Your task to perform on an android device: all mails in gmail Image 0: 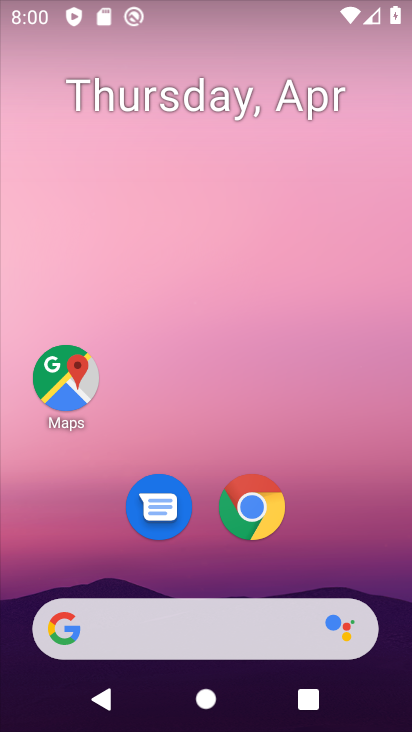
Step 0: drag from (357, 526) to (344, 2)
Your task to perform on an android device: all mails in gmail Image 1: 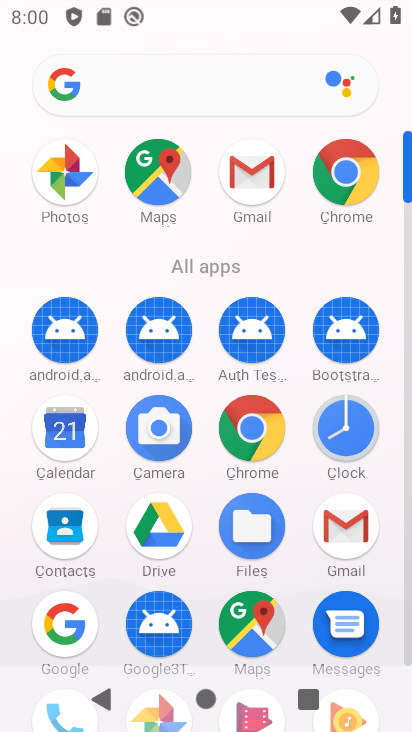
Step 1: click (247, 151)
Your task to perform on an android device: all mails in gmail Image 2: 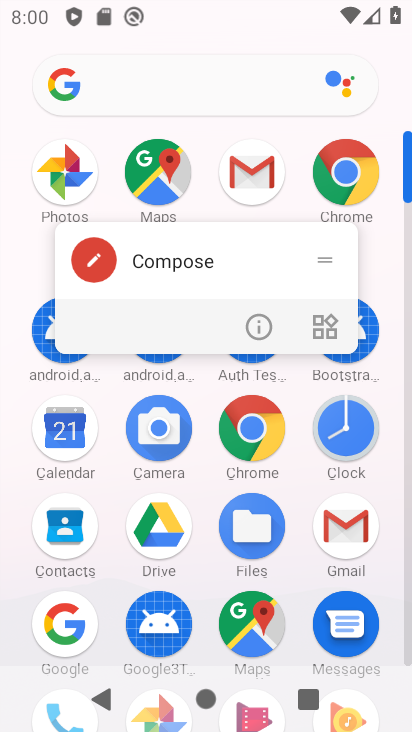
Step 2: click (254, 158)
Your task to perform on an android device: all mails in gmail Image 3: 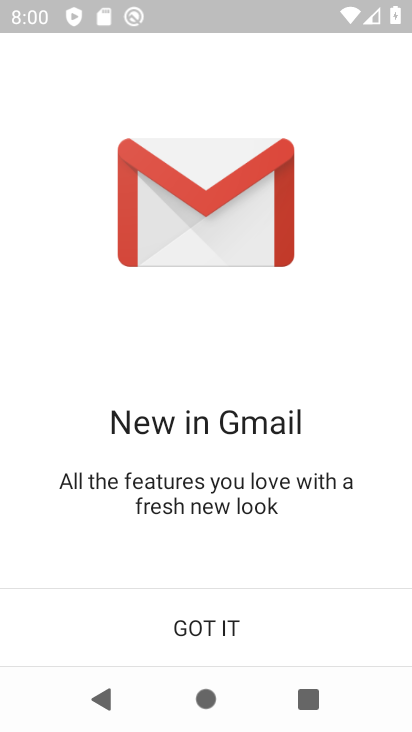
Step 3: click (194, 632)
Your task to perform on an android device: all mails in gmail Image 4: 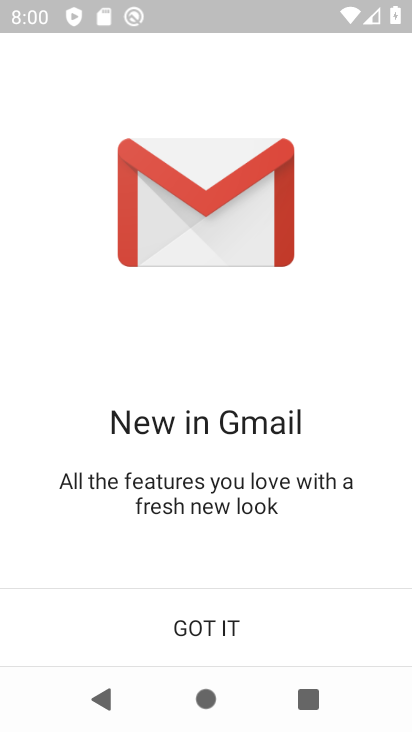
Step 4: click (194, 632)
Your task to perform on an android device: all mails in gmail Image 5: 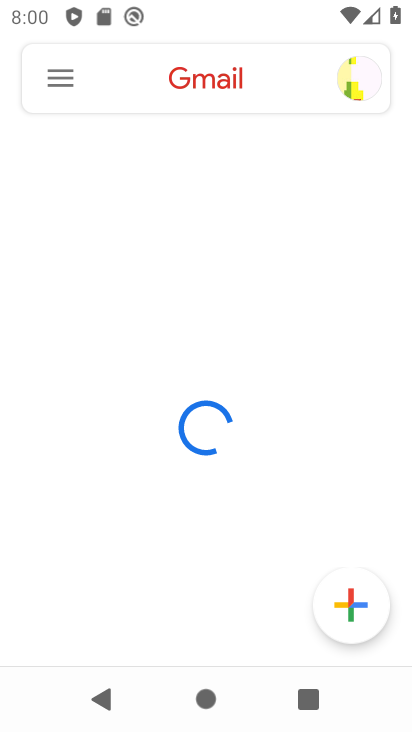
Step 5: click (60, 72)
Your task to perform on an android device: all mails in gmail Image 6: 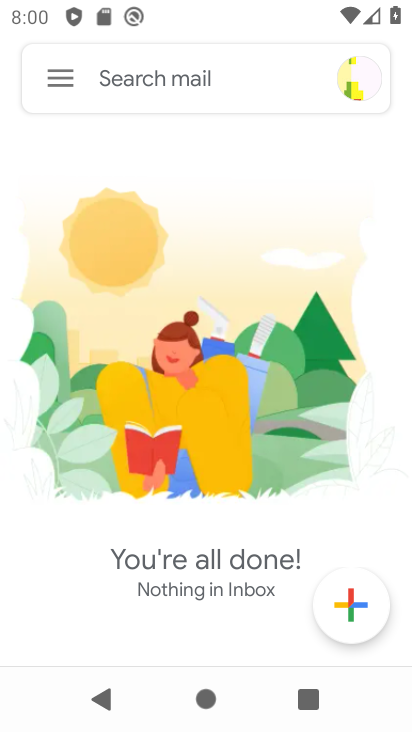
Step 6: click (60, 72)
Your task to perform on an android device: all mails in gmail Image 7: 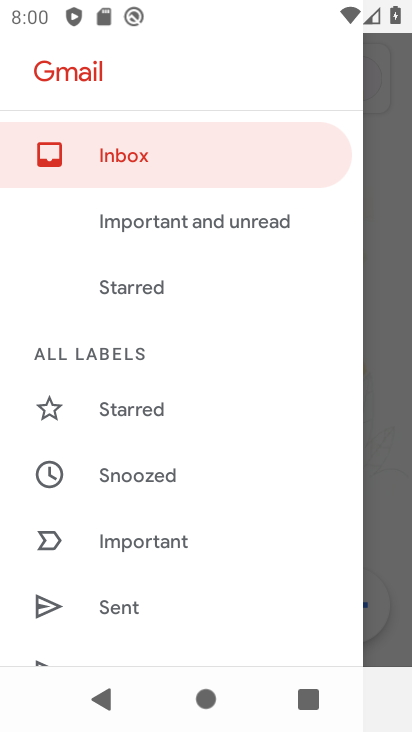
Step 7: drag from (202, 586) to (231, 100)
Your task to perform on an android device: all mails in gmail Image 8: 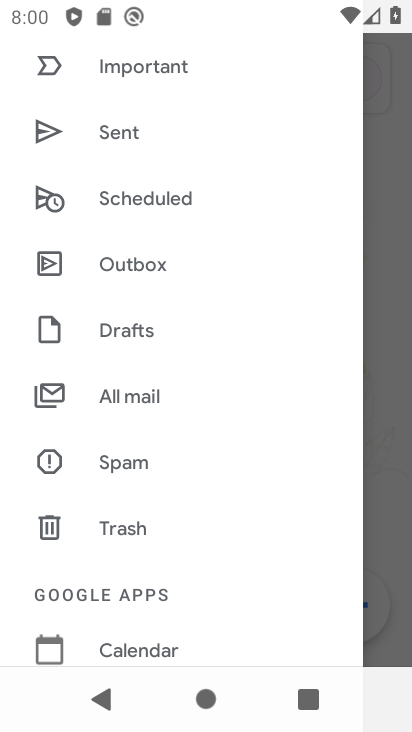
Step 8: click (198, 381)
Your task to perform on an android device: all mails in gmail Image 9: 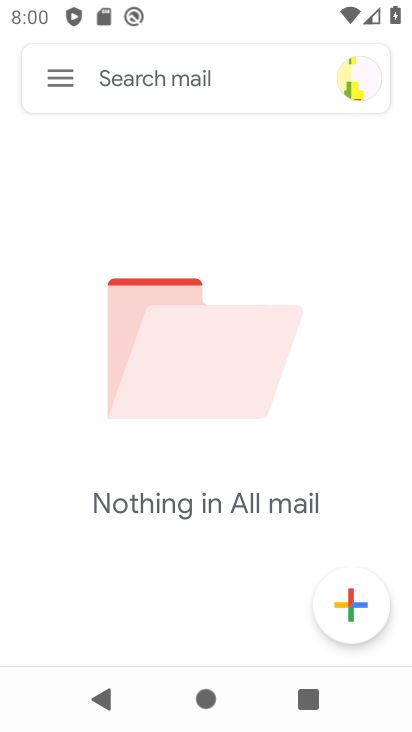
Step 9: task complete